Your task to perform on an android device: toggle pop-ups in chrome Image 0: 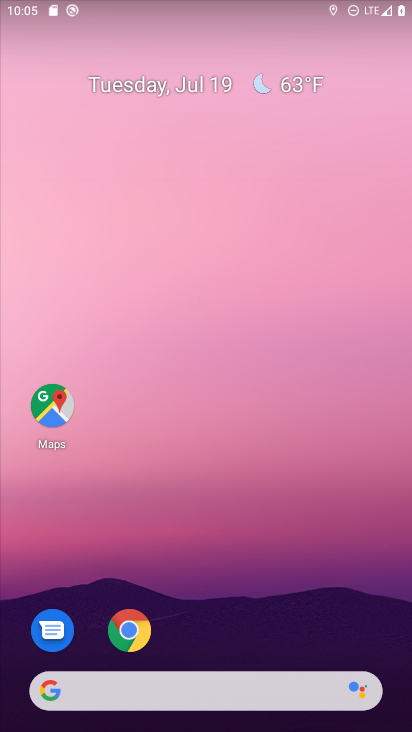
Step 0: click (130, 631)
Your task to perform on an android device: toggle pop-ups in chrome Image 1: 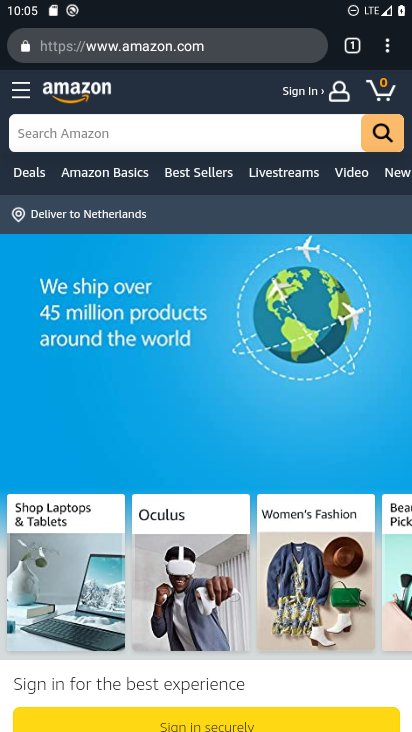
Step 1: click (386, 49)
Your task to perform on an android device: toggle pop-ups in chrome Image 2: 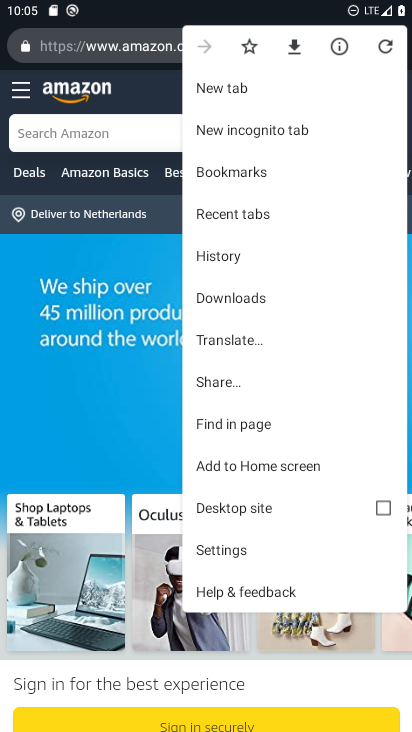
Step 2: click (229, 552)
Your task to perform on an android device: toggle pop-ups in chrome Image 3: 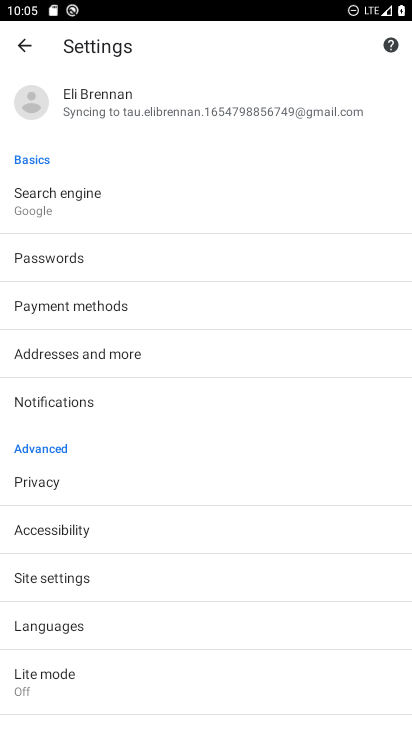
Step 3: click (53, 579)
Your task to perform on an android device: toggle pop-ups in chrome Image 4: 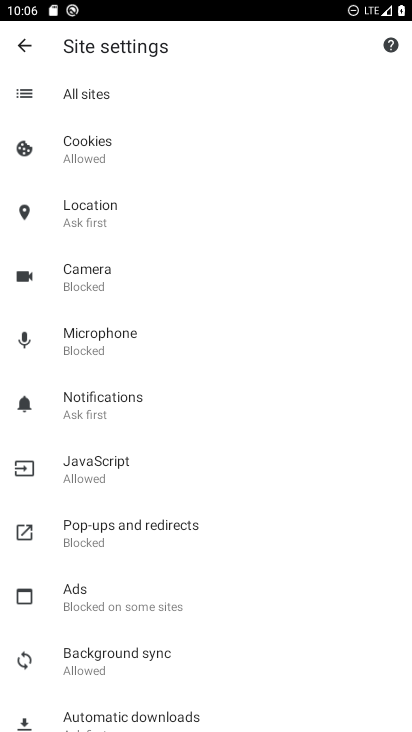
Step 4: click (94, 531)
Your task to perform on an android device: toggle pop-ups in chrome Image 5: 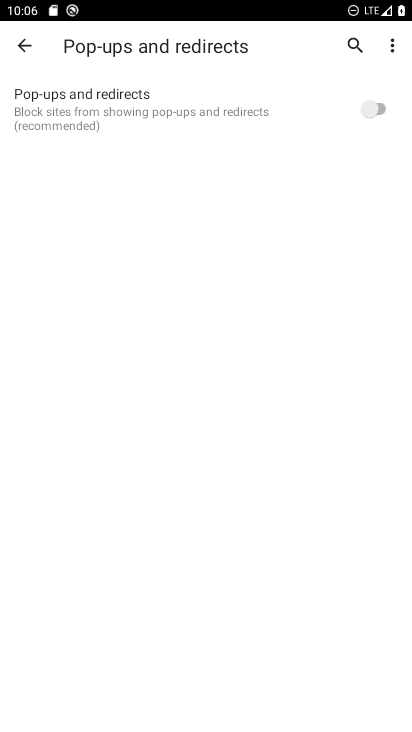
Step 5: click (372, 108)
Your task to perform on an android device: toggle pop-ups in chrome Image 6: 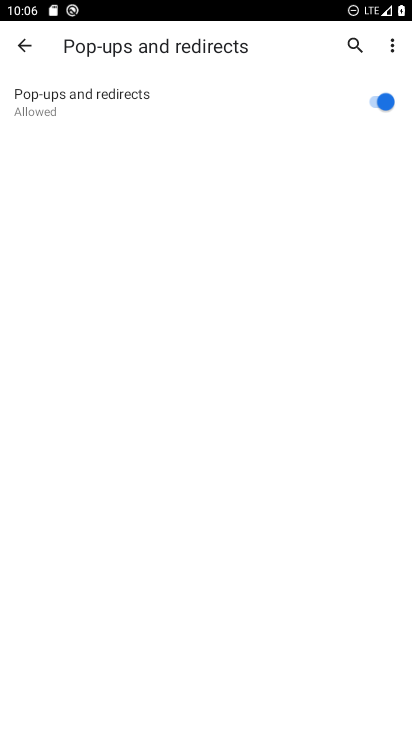
Step 6: task complete